Your task to perform on an android device: manage bookmarks in the chrome app Image 0: 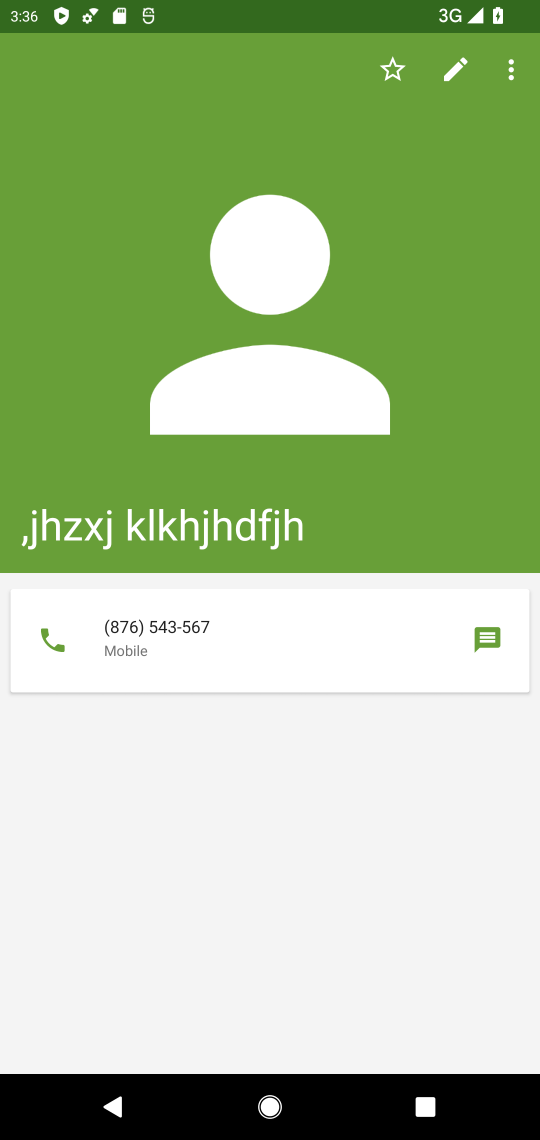
Step 0: press home button
Your task to perform on an android device: manage bookmarks in the chrome app Image 1: 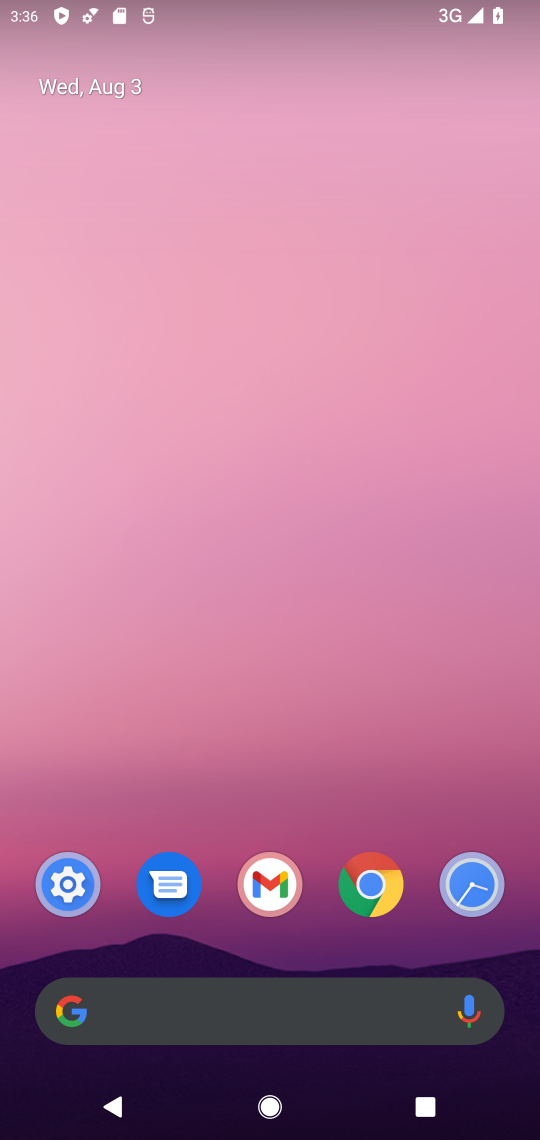
Step 1: click (368, 895)
Your task to perform on an android device: manage bookmarks in the chrome app Image 2: 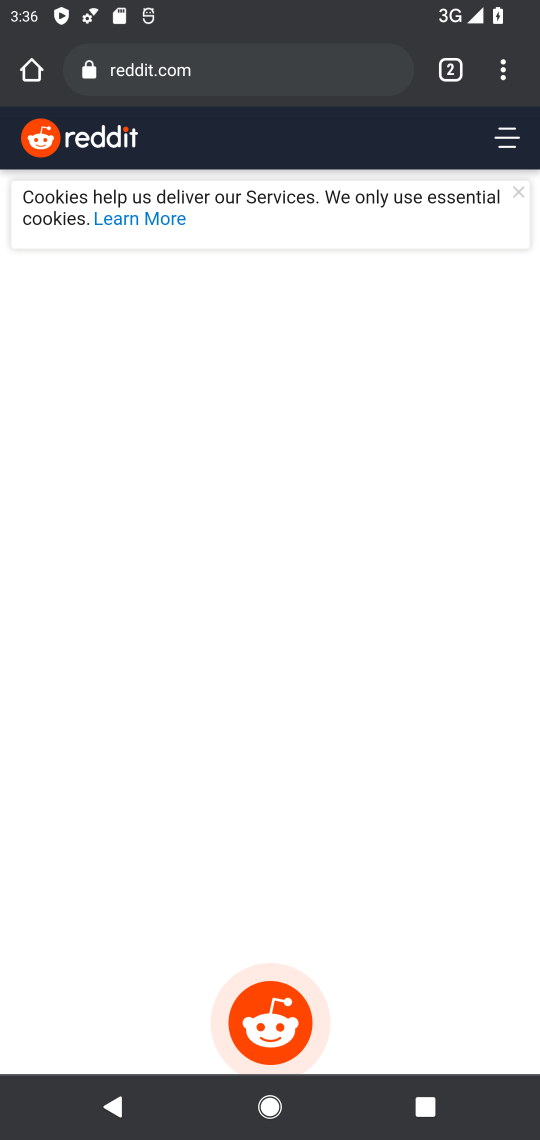
Step 2: click (496, 74)
Your task to perform on an android device: manage bookmarks in the chrome app Image 3: 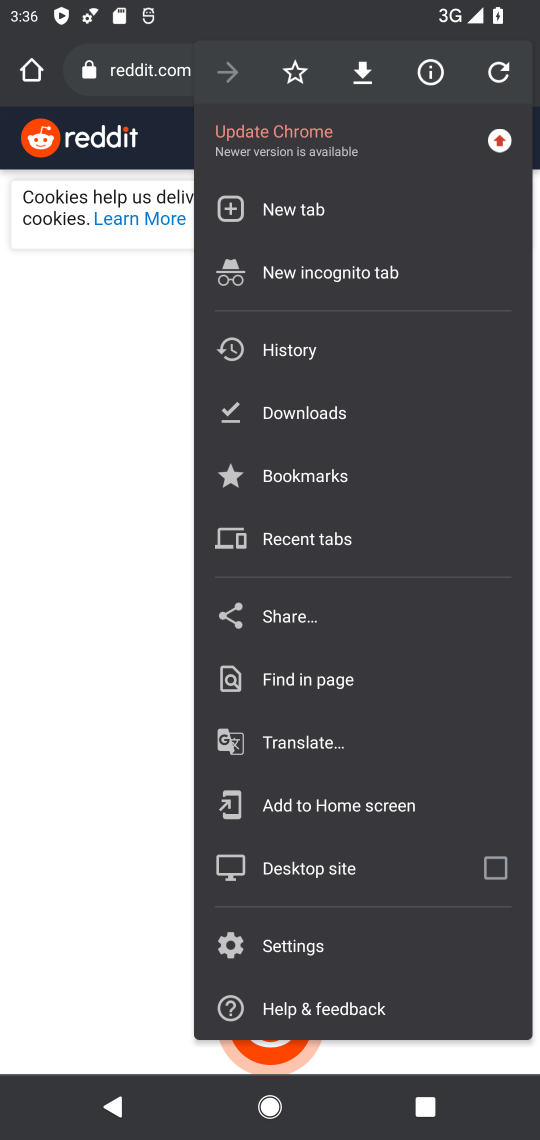
Step 3: click (342, 475)
Your task to perform on an android device: manage bookmarks in the chrome app Image 4: 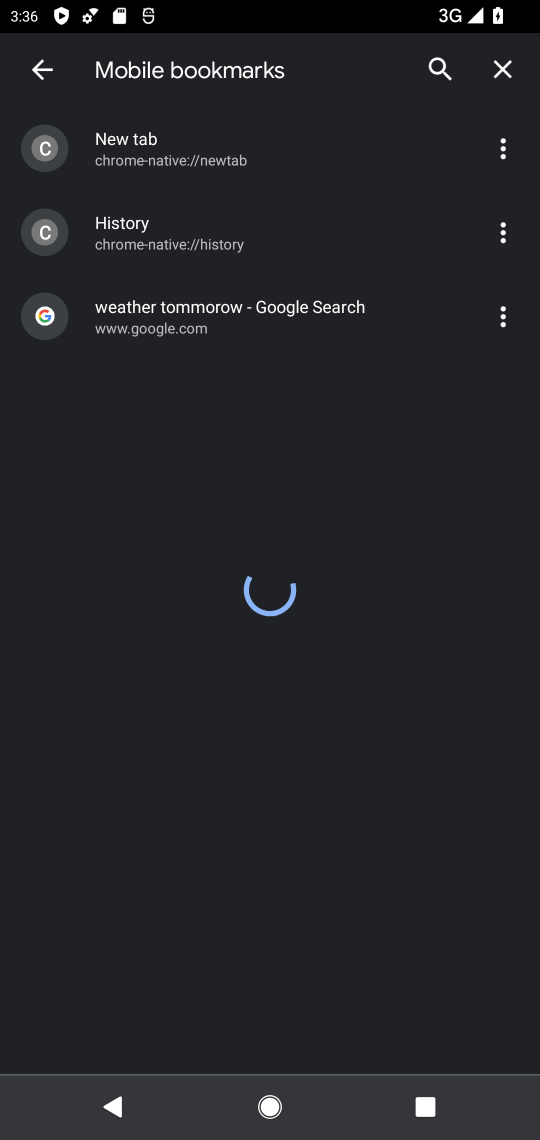
Step 4: task complete